Your task to perform on an android device: Go to ESPN.com Image 0: 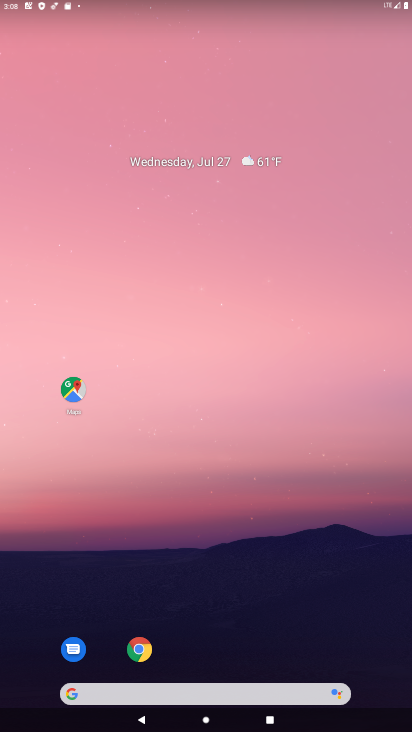
Step 0: click (141, 648)
Your task to perform on an android device: Go to ESPN.com Image 1: 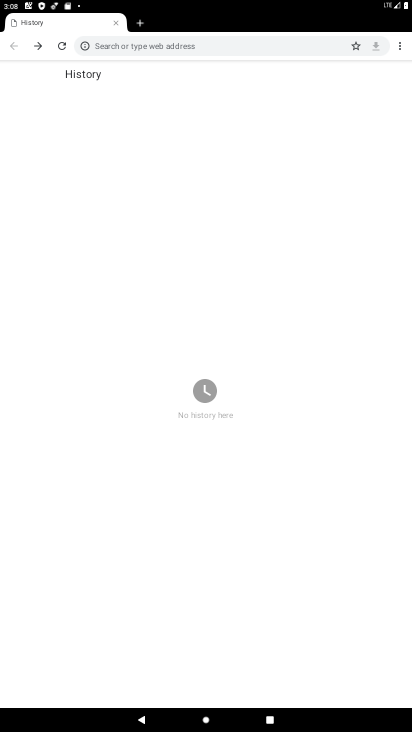
Step 1: click (175, 45)
Your task to perform on an android device: Go to ESPN.com Image 2: 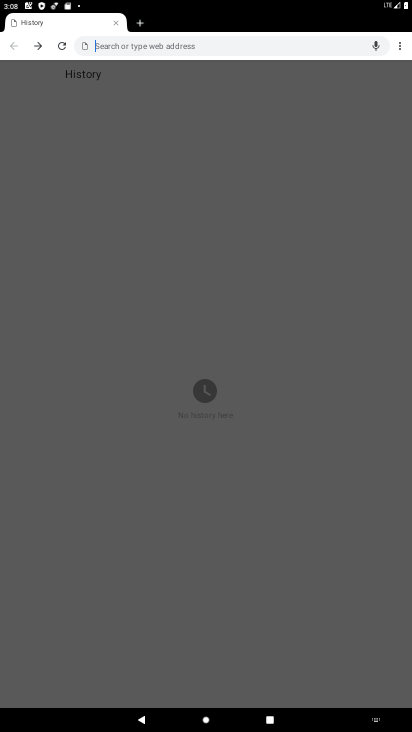
Step 2: type "www.espn.com"
Your task to perform on an android device: Go to ESPN.com Image 3: 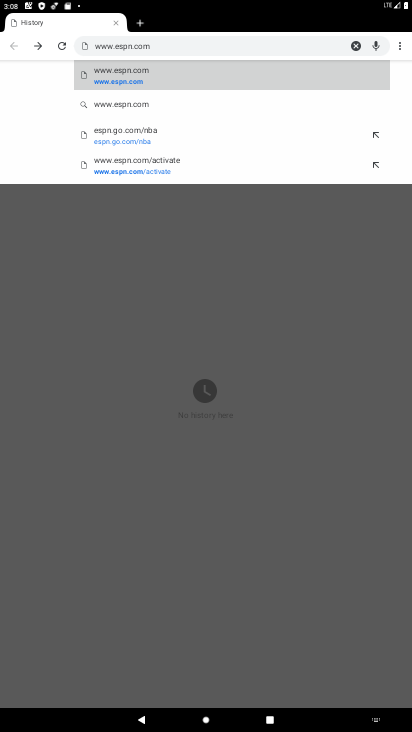
Step 3: click (116, 75)
Your task to perform on an android device: Go to ESPN.com Image 4: 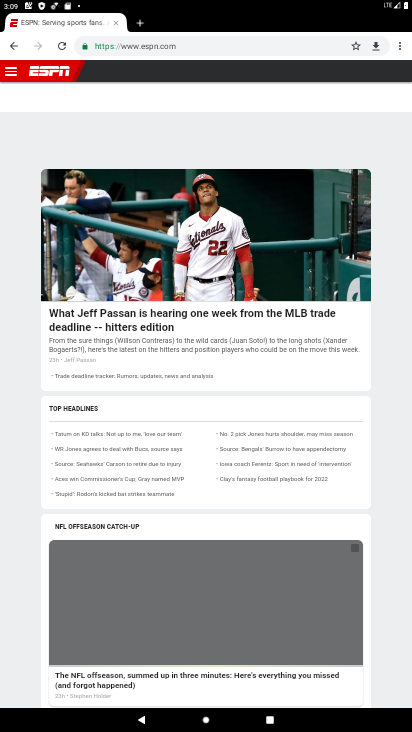
Step 4: task complete